Your task to perform on an android device: Open ESPN.com Image 0: 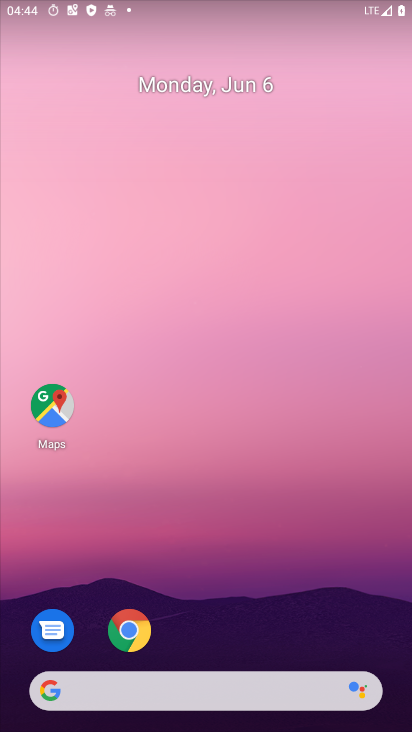
Step 0: drag from (235, 623) to (185, 74)
Your task to perform on an android device: Open ESPN.com Image 1: 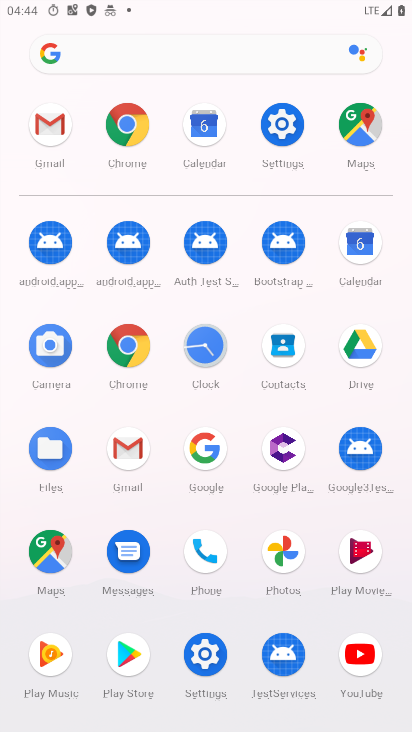
Step 1: click (131, 344)
Your task to perform on an android device: Open ESPN.com Image 2: 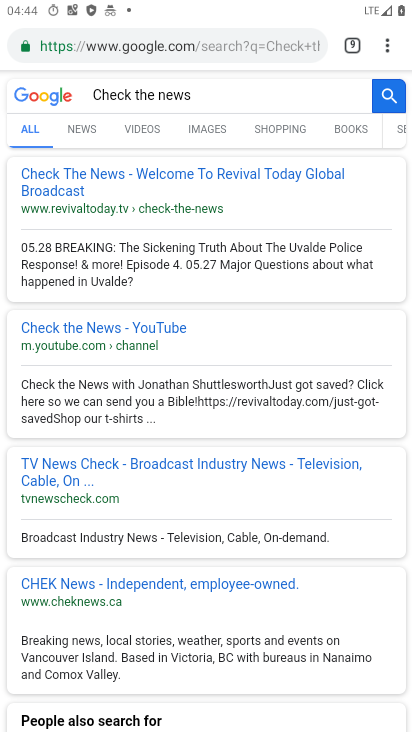
Step 2: click (183, 45)
Your task to perform on an android device: Open ESPN.com Image 3: 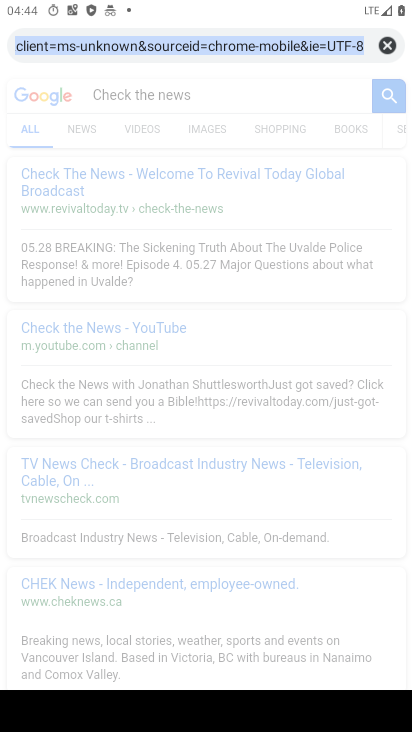
Step 3: click (387, 50)
Your task to perform on an android device: Open ESPN.com Image 4: 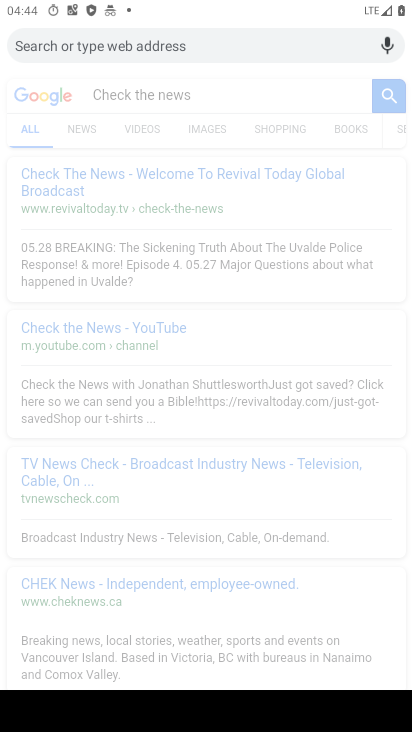
Step 4: type " ESPN.com"
Your task to perform on an android device: Open ESPN.com Image 5: 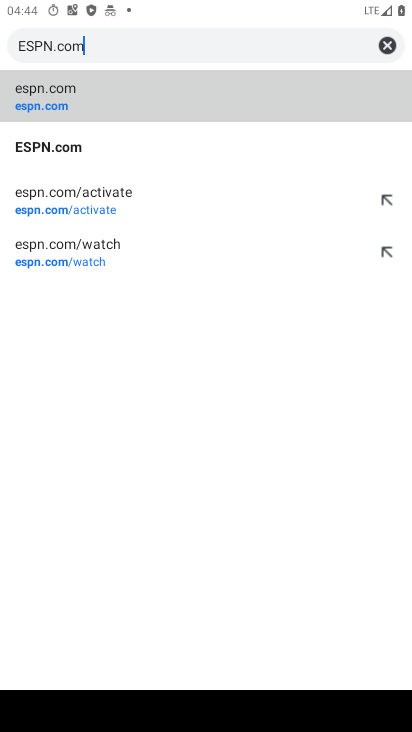
Step 5: click (33, 109)
Your task to perform on an android device: Open ESPN.com Image 6: 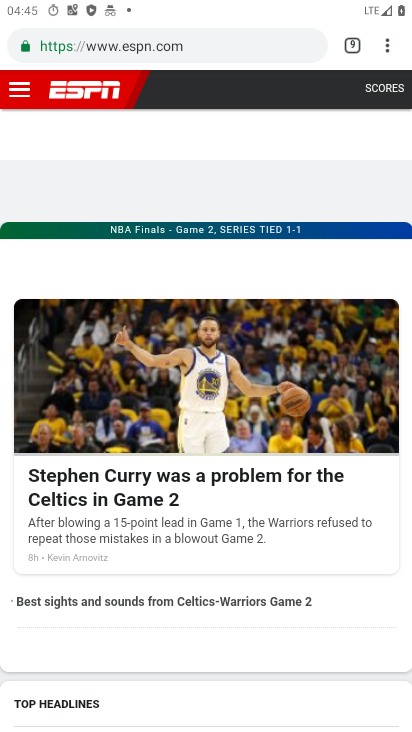
Step 6: task complete